Your task to perform on an android device: What's the weather? Image 0: 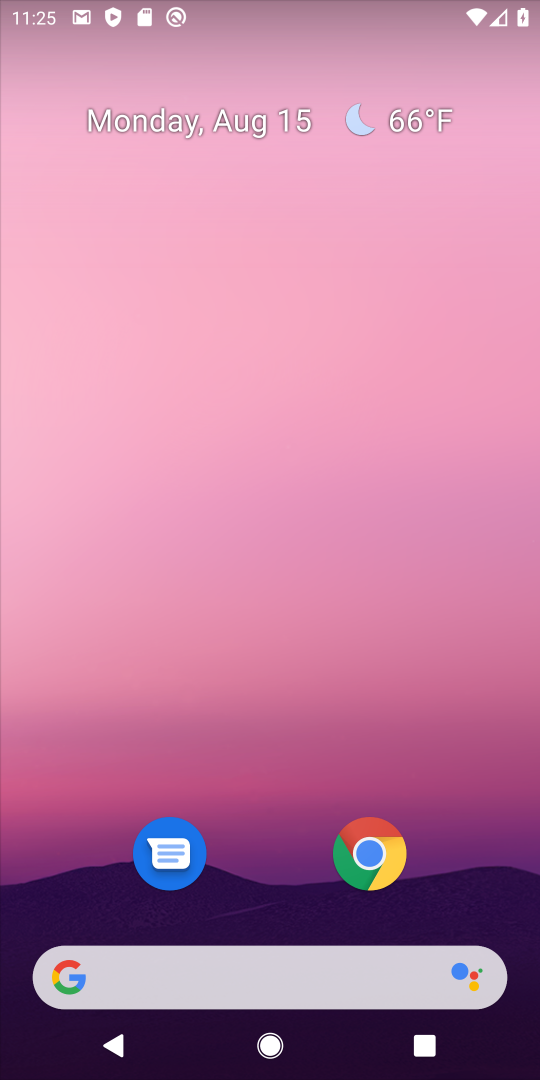
Step 0: press home button
Your task to perform on an android device: What's the weather? Image 1: 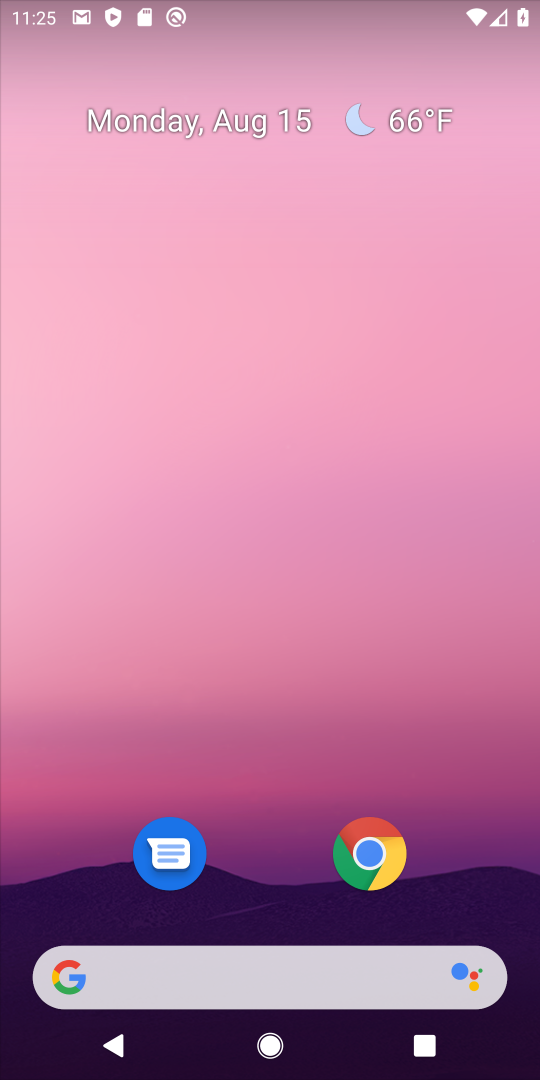
Step 1: drag from (241, 950) to (246, 313)
Your task to perform on an android device: What's the weather? Image 2: 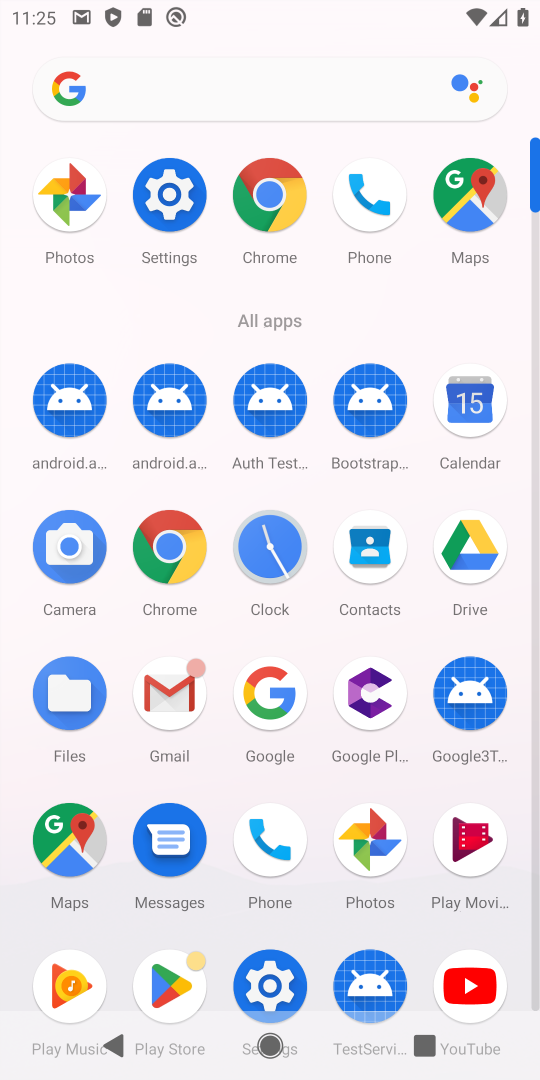
Step 2: click (258, 700)
Your task to perform on an android device: What's the weather? Image 3: 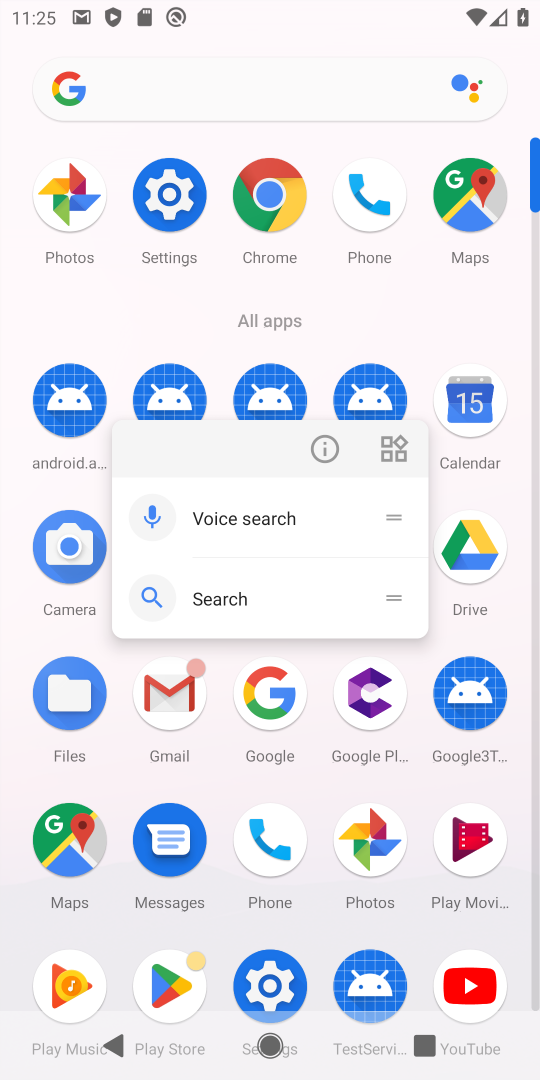
Step 3: click (259, 698)
Your task to perform on an android device: What's the weather? Image 4: 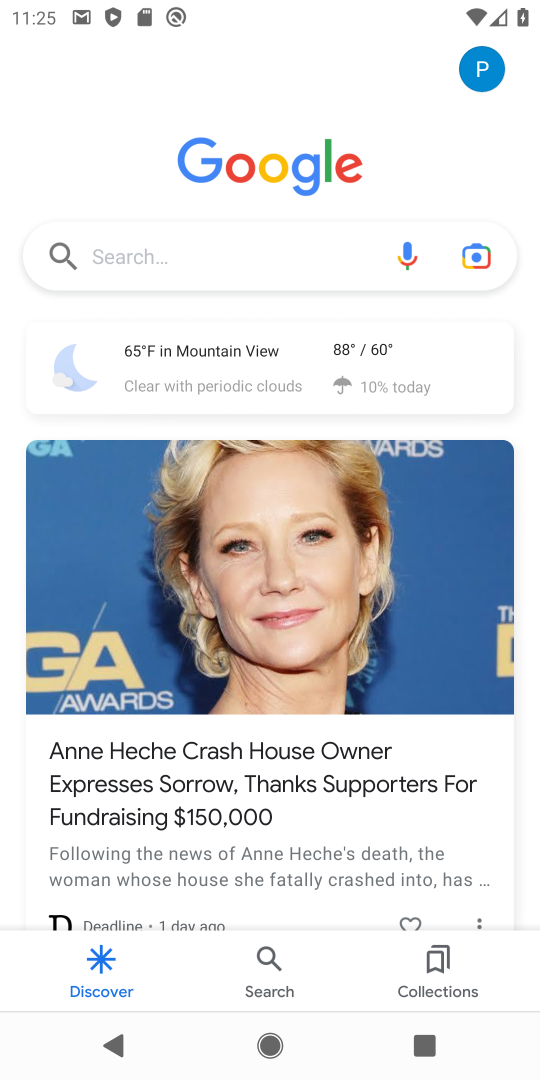
Step 4: click (263, 268)
Your task to perform on an android device: What's the weather? Image 5: 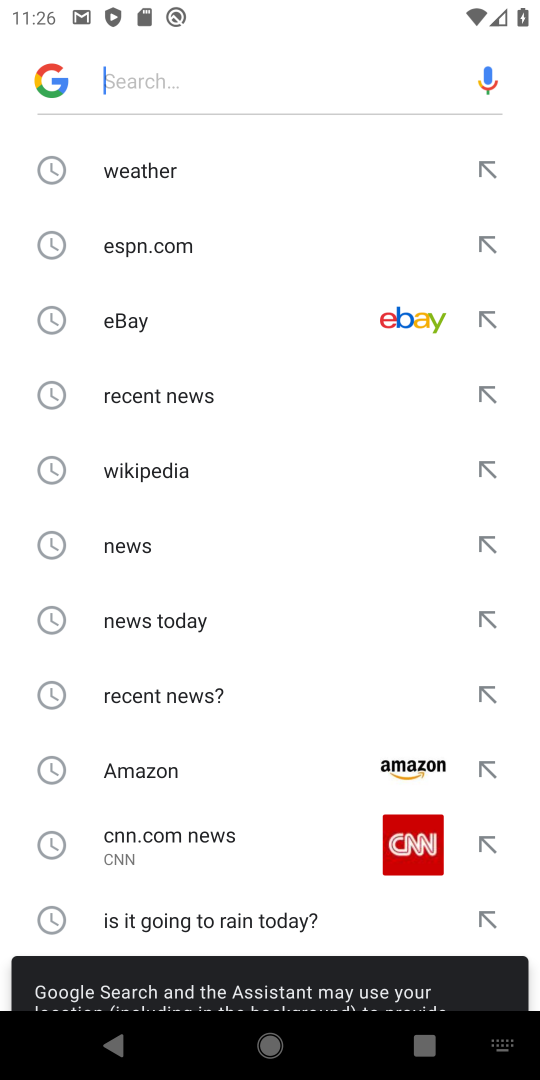
Step 5: click (120, 168)
Your task to perform on an android device: What's the weather? Image 6: 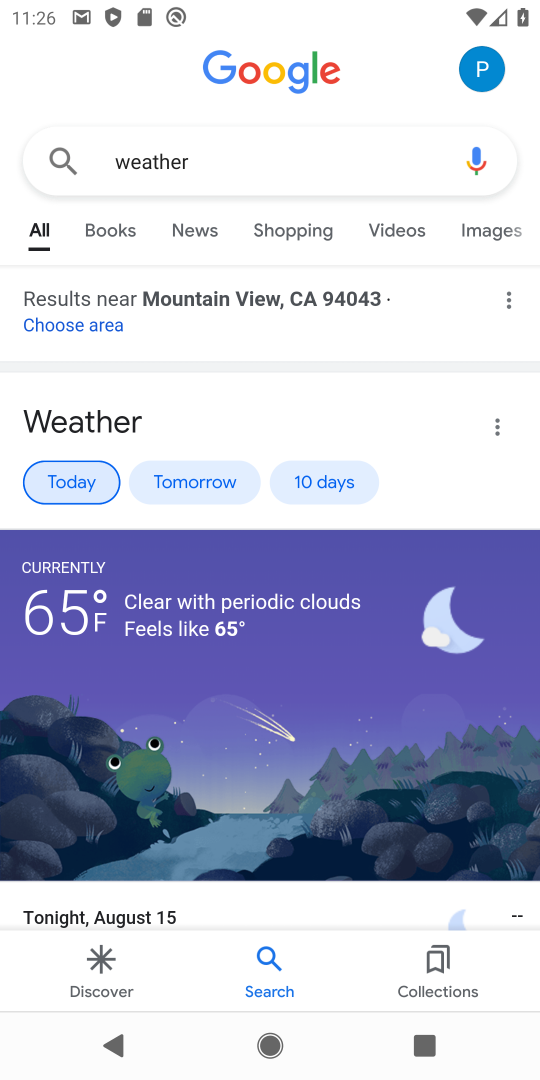
Step 6: task complete